Your task to perform on an android device: Open Chrome and go to settings Image 0: 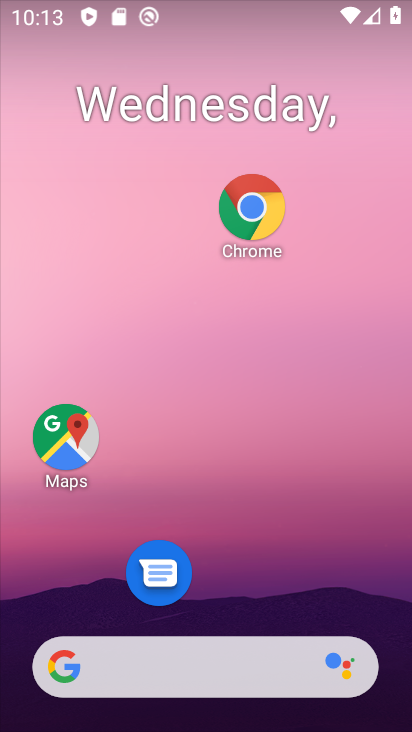
Step 0: click (252, 227)
Your task to perform on an android device: Open Chrome and go to settings Image 1: 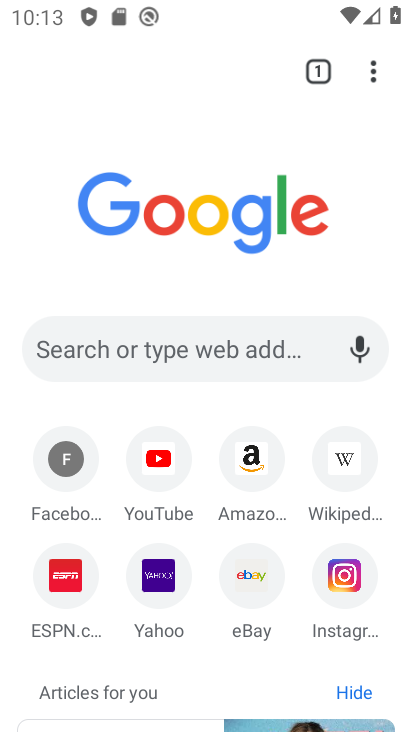
Step 1: task complete